Your task to perform on an android device: open the mobile data screen to see how much data has been used Image 0: 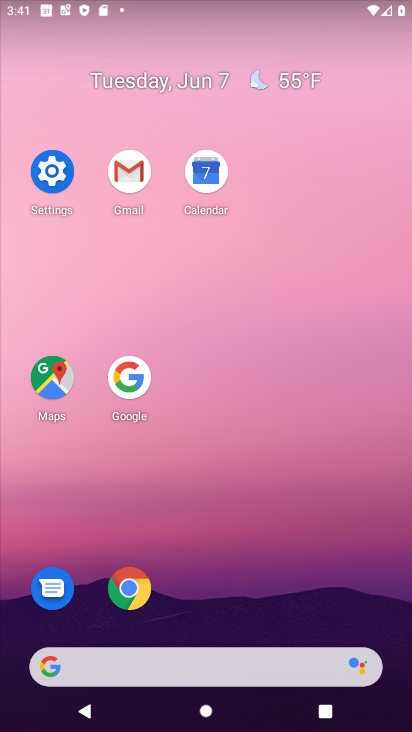
Step 0: click (58, 168)
Your task to perform on an android device: open the mobile data screen to see how much data has been used Image 1: 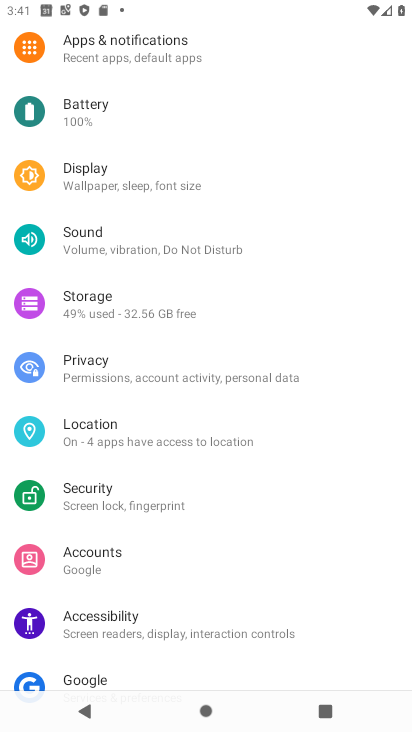
Step 1: drag from (304, 172) to (232, 575)
Your task to perform on an android device: open the mobile data screen to see how much data has been used Image 2: 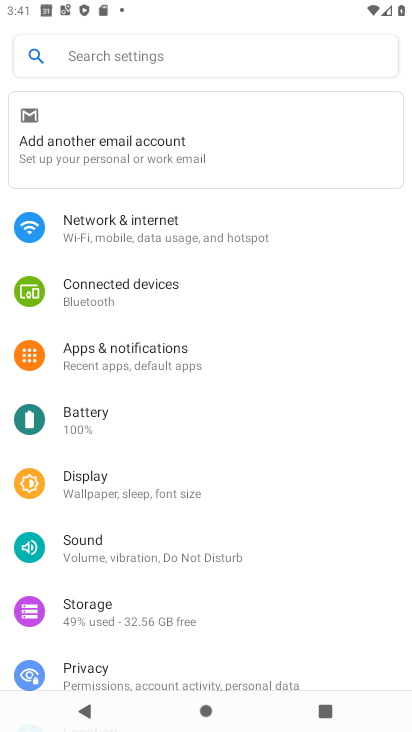
Step 2: click (243, 226)
Your task to perform on an android device: open the mobile data screen to see how much data has been used Image 3: 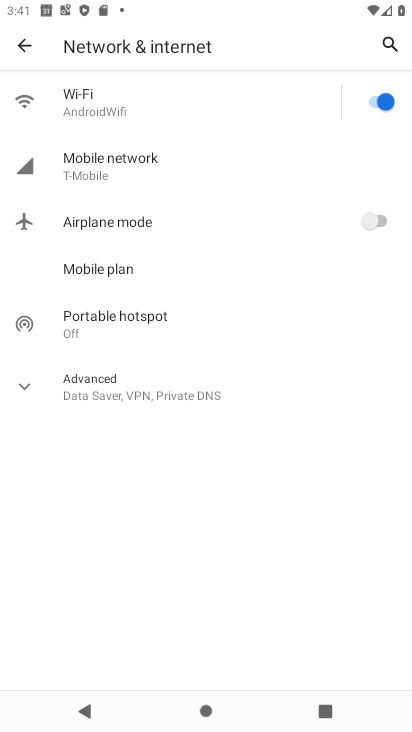
Step 3: click (167, 179)
Your task to perform on an android device: open the mobile data screen to see how much data has been used Image 4: 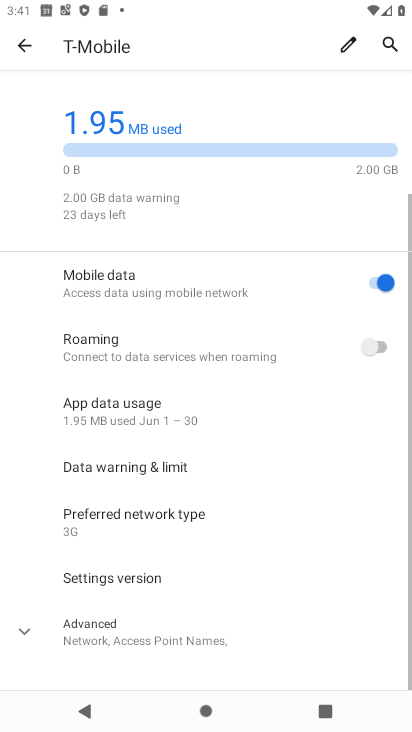
Step 4: task complete